Your task to perform on an android device: Open internet settings Image 0: 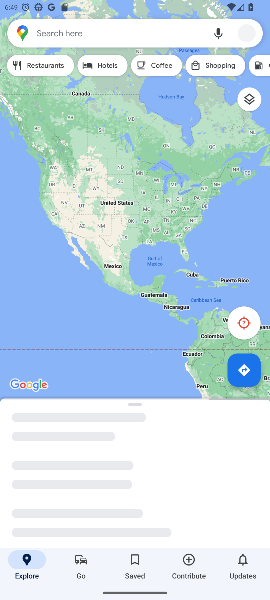
Step 0: press home button
Your task to perform on an android device: Open internet settings Image 1: 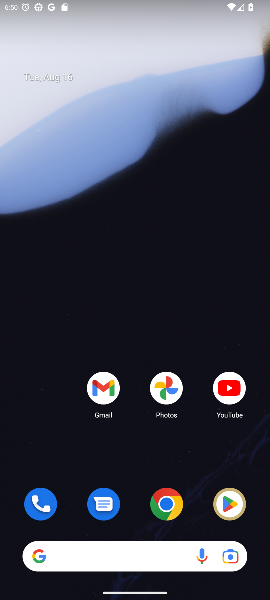
Step 1: drag from (30, 569) to (155, 258)
Your task to perform on an android device: Open internet settings Image 2: 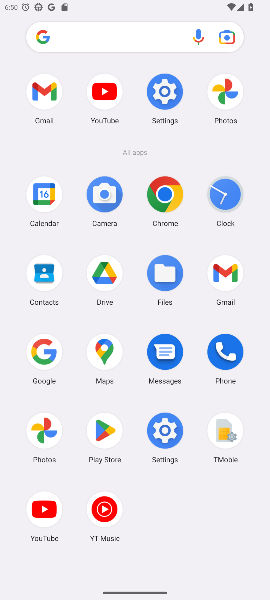
Step 2: click (164, 428)
Your task to perform on an android device: Open internet settings Image 3: 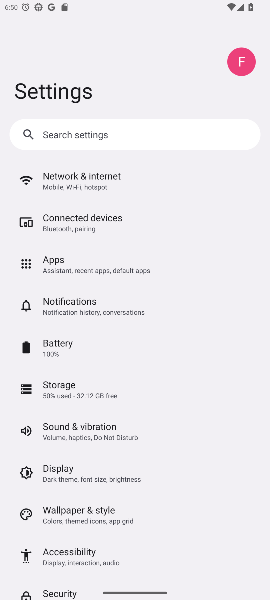
Step 3: click (98, 176)
Your task to perform on an android device: Open internet settings Image 4: 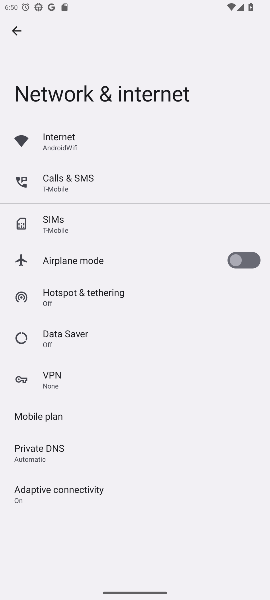
Step 4: task complete